Your task to perform on an android device: check battery use Image 0: 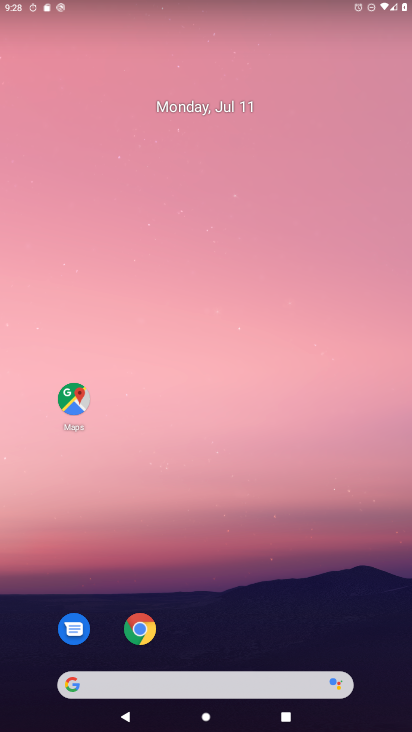
Step 0: drag from (227, 640) to (231, 86)
Your task to perform on an android device: check battery use Image 1: 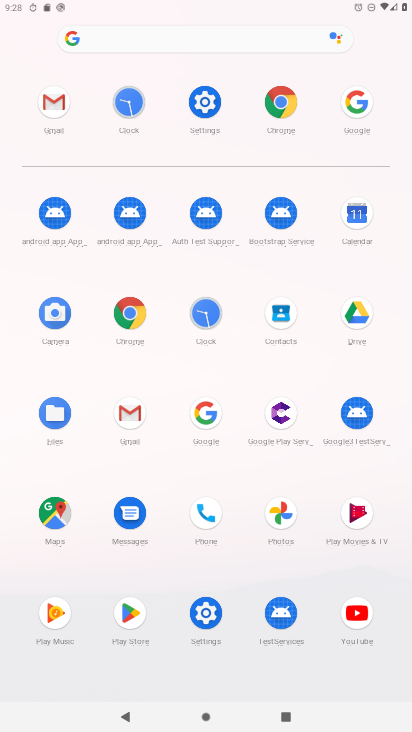
Step 1: click (208, 105)
Your task to perform on an android device: check battery use Image 2: 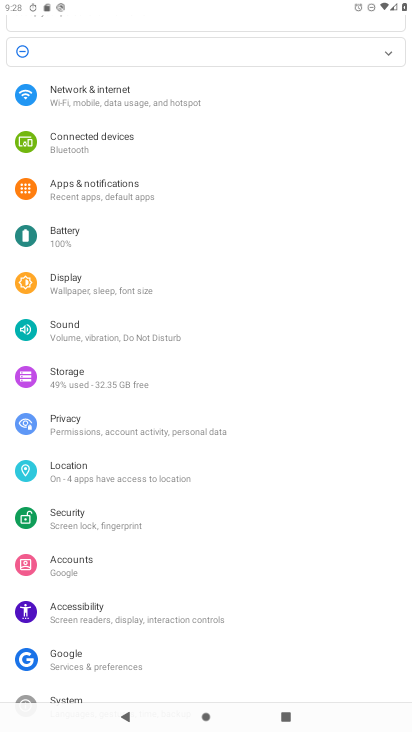
Step 2: click (76, 242)
Your task to perform on an android device: check battery use Image 3: 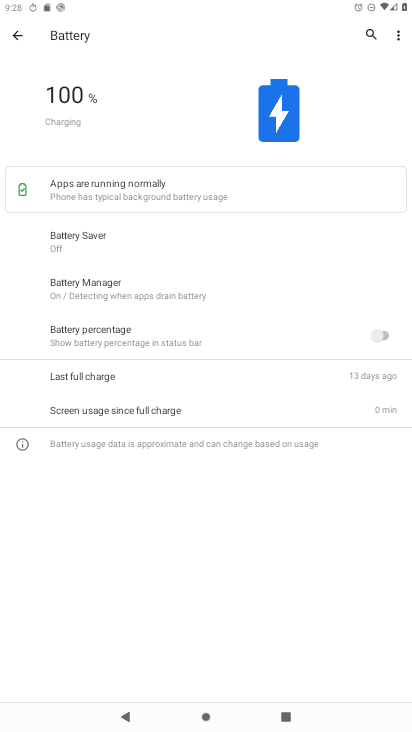
Step 3: click (388, 35)
Your task to perform on an android device: check battery use Image 4: 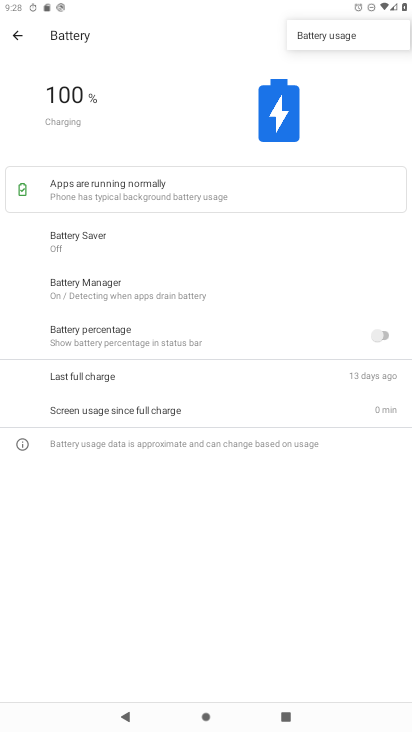
Step 4: click (306, 30)
Your task to perform on an android device: check battery use Image 5: 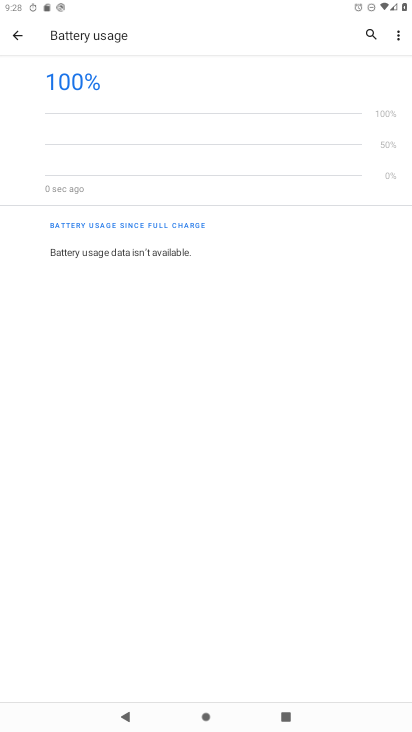
Step 5: task complete